Your task to perform on an android device: Open the calendar app, open the side menu, and click the "Day" option Image 0: 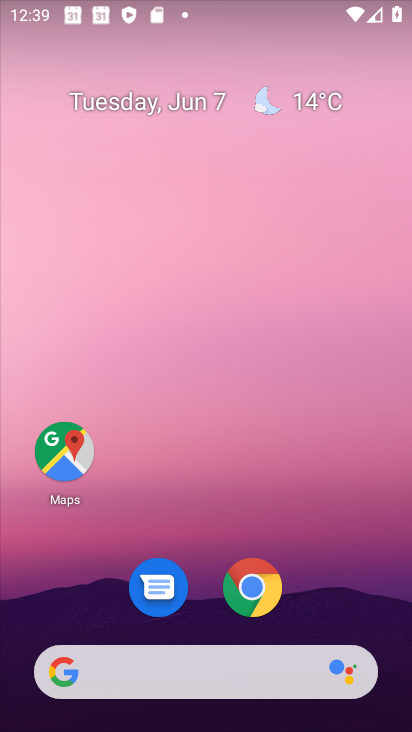
Step 0: drag from (212, 661) to (211, 210)
Your task to perform on an android device: Open the calendar app, open the side menu, and click the "Day" option Image 1: 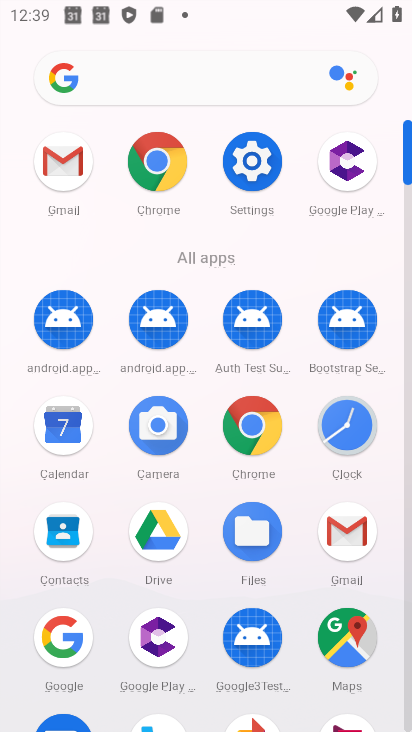
Step 1: click (75, 443)
Your task to perform on an android device: Open the calendar app, open the side menu, and click the "Day" option Image 2: 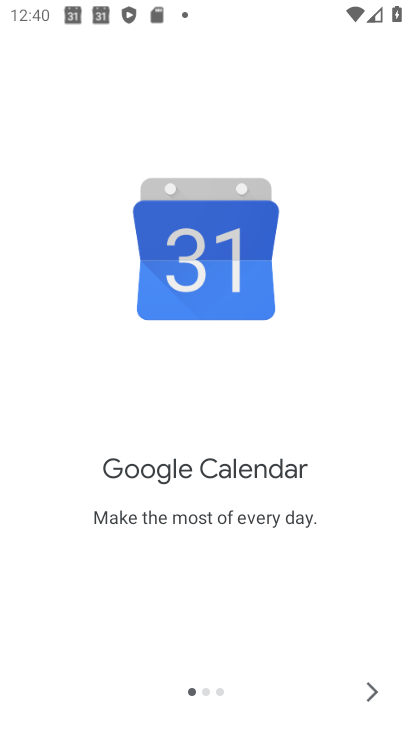
Step 2: click (372, 693)
Your task to perform on an android device: Open the calendar app, open the side menu, and click the "Day" option Image 3: 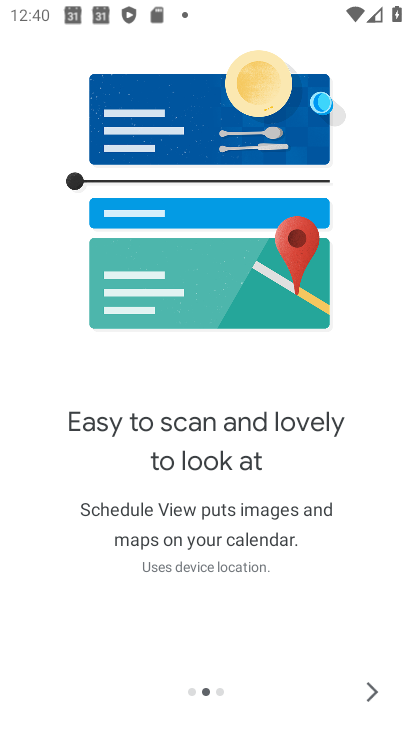
Step 3: click (372, 693)
Your task to perform on an android device: Open the calendar app, open the side menu, and click the "Day" option Image 4: 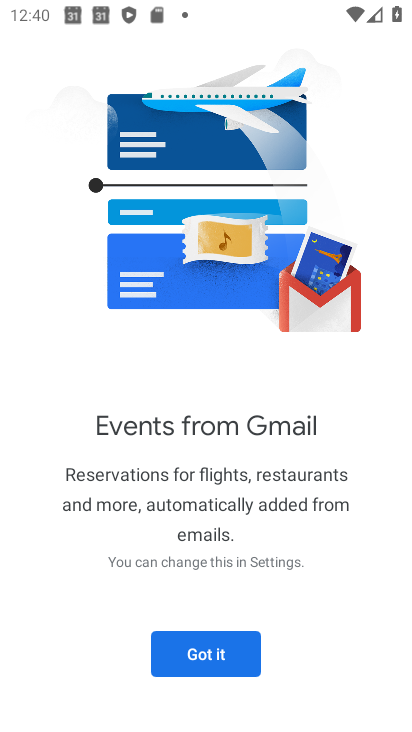
Step 4: click (200, 654)
Your task to perform on an android device: Open the calendar app, open the side menu, and click the "Day" option Image 5: 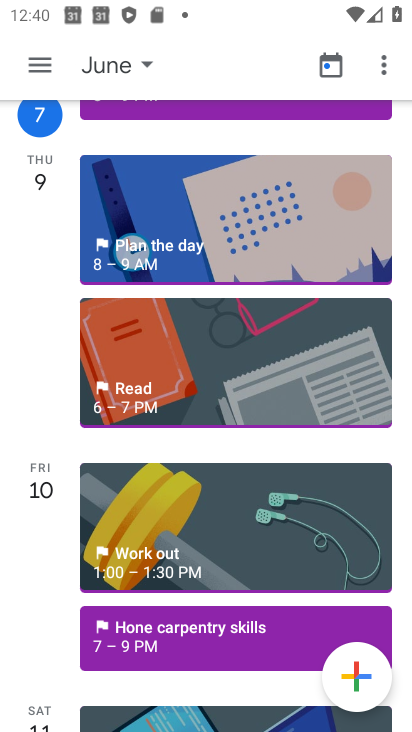
Step 5: click (47, 62)
Your task to perform on an android device: Open the calendar app, open the side menu, and click the "Day" option Image 6: 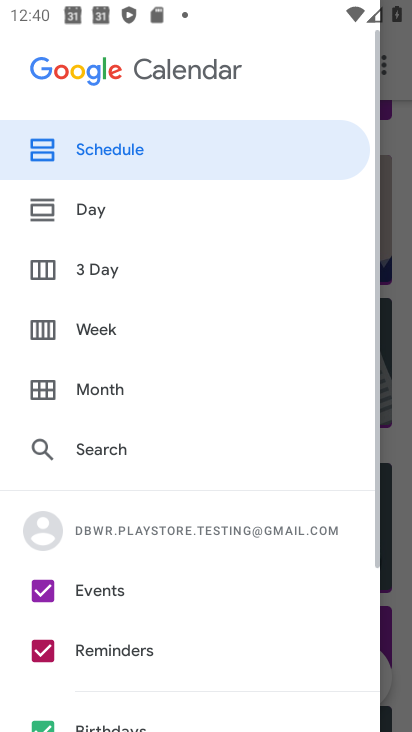
Step 6: click (210, 207)
Your task to perform on an android device: Open the calendar app, open the side menu, and click the "Day" option Image 7: 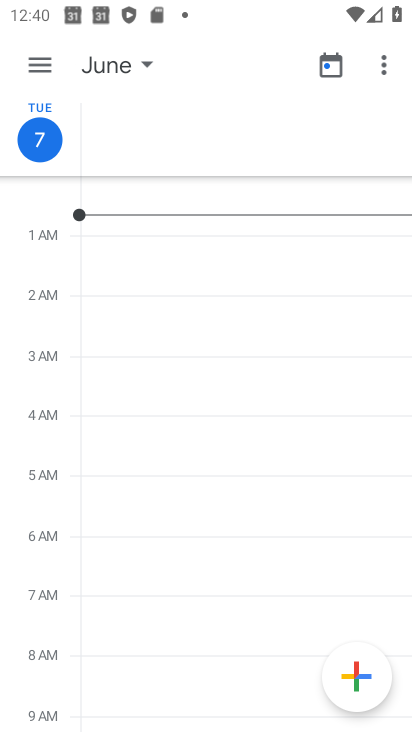
Step 7: task complete